Your task to perform on an android device: open wifi settings Image 0: 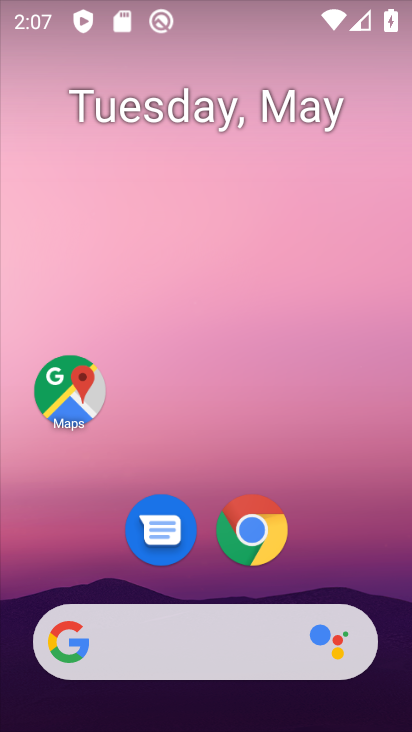
Step 0: drag from (241, 2) to (198, 341)
Your task to perform on an android device: open wifi settings Image 1: 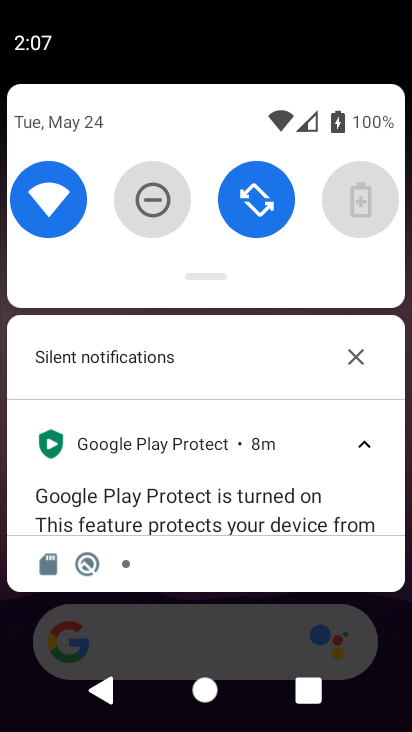
Step 1: click (80, 201)
Your task to perform on an android device: open wifi settings Image 2: 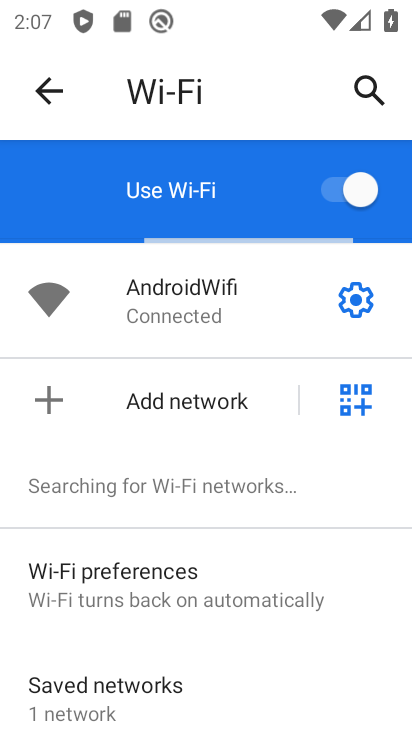
Step 2: click (345, 301)
Your task to perform on an android device: open wifi settings Image 3: 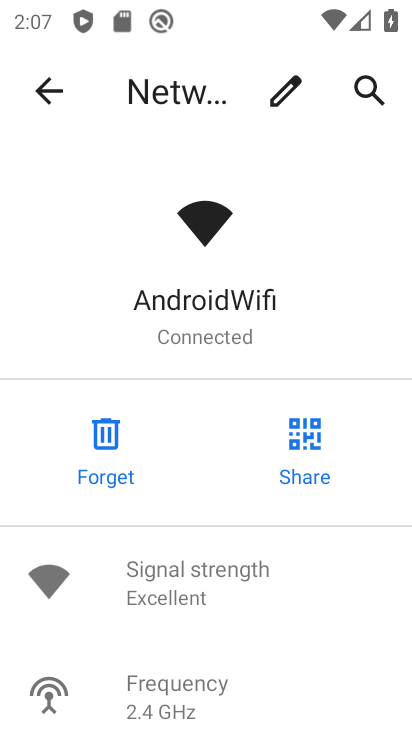
Step 3: task complete